Your task to perform on an android device: Open location settings Image 0: 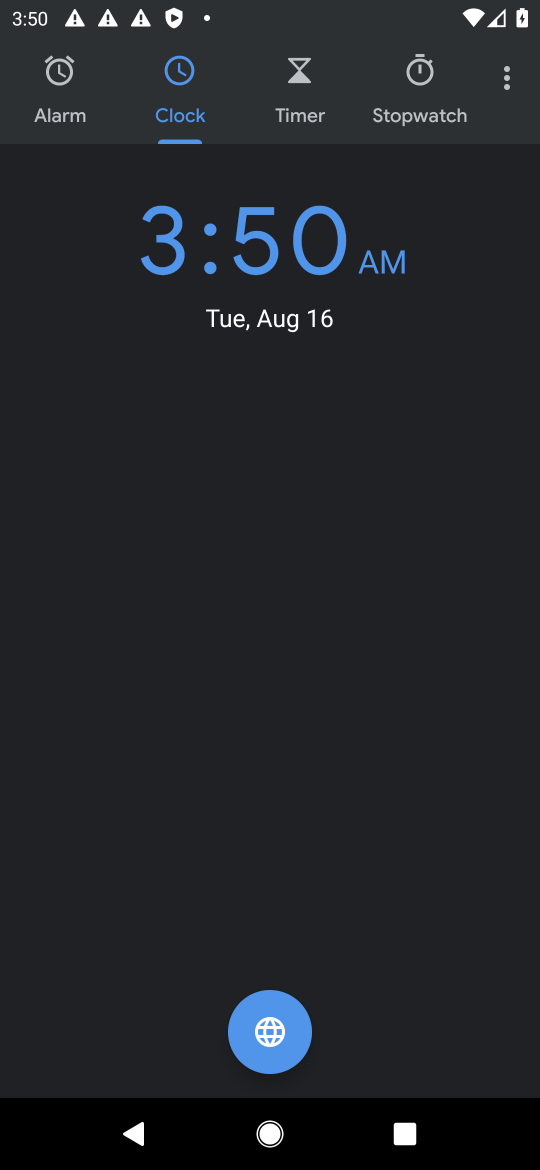
Step 0: press home button
Your task to perform on an android device: Open location settings Image 1: 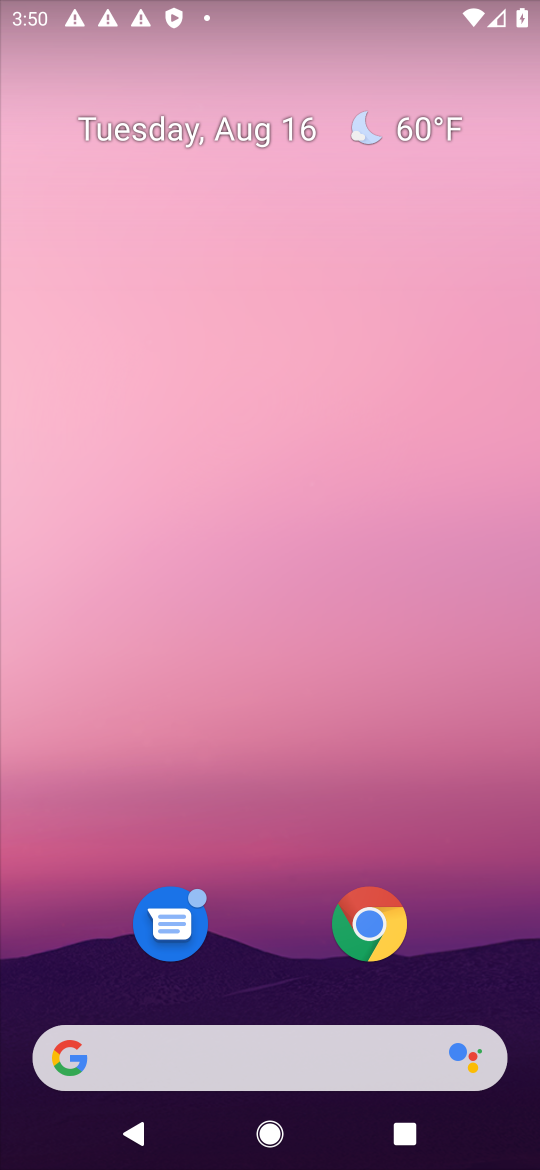
Step 1: drag from (261, 999) to (257, 191)
Your task to perform on an android device: Open location settings Image 2: 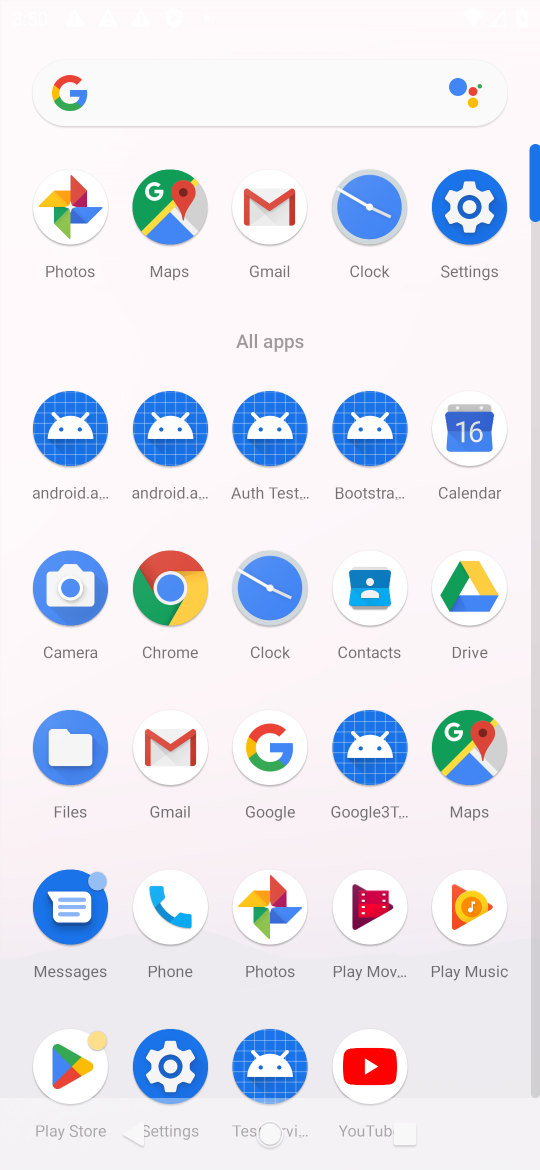
Step 2: click (490, 212)
Your task to perform on an android device: Open location settings Image 3: 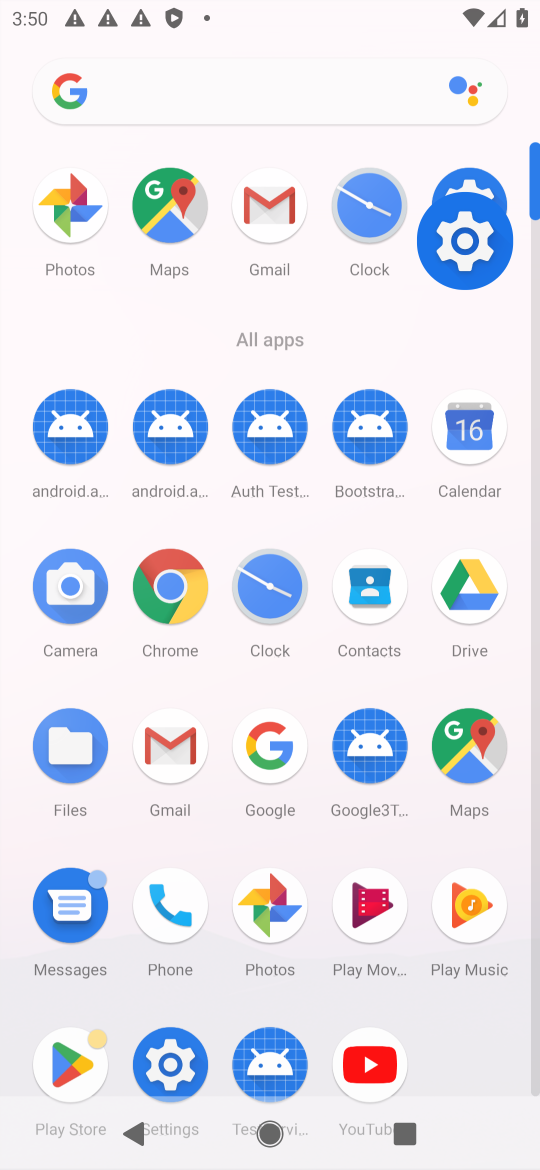
Step 3: click (471, 158)
Your task to perform on an android device: Open location settings Image 4: 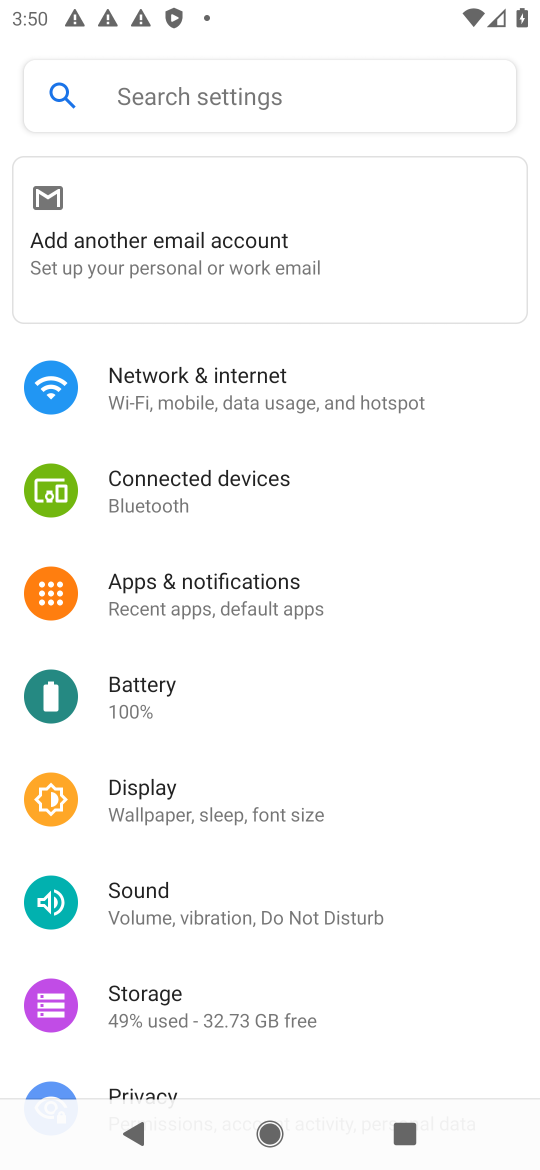
Step 4: drag from (132, 1047) to (249, 516)
Your task to perform on an android device: Open location settings Image 5: 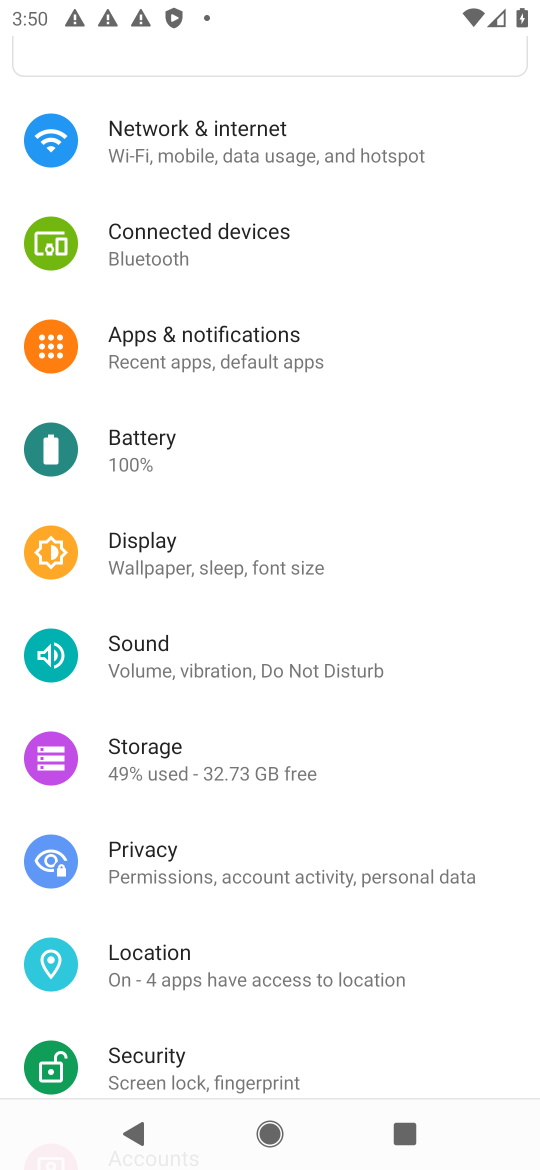
Step 5: click (194, 949)
Your task to perform on an android device: Open location settings Image 6: 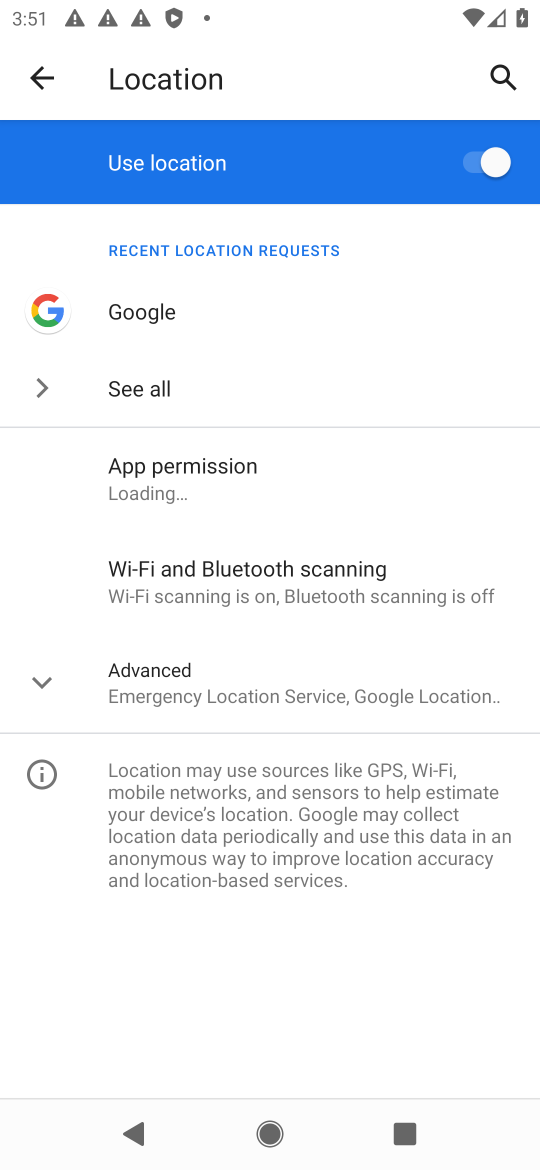
Step 6: task complete